Your task to perform on an android device: turn smart compose on in the gmail app Image 0: 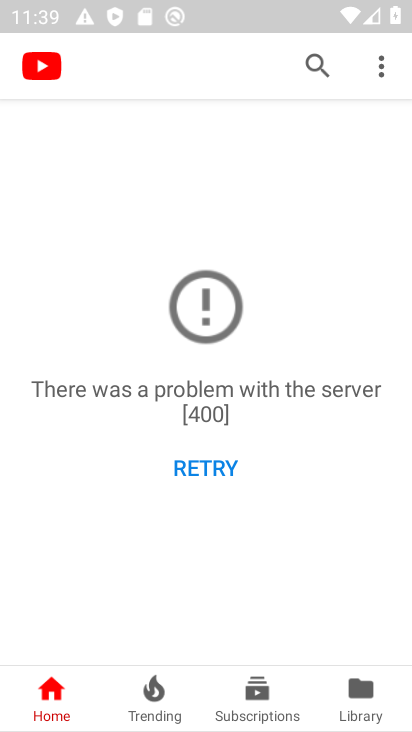
Step 0: press home button
Your task to perform on an android device: turn smart compose on in the gmail app Image 1: 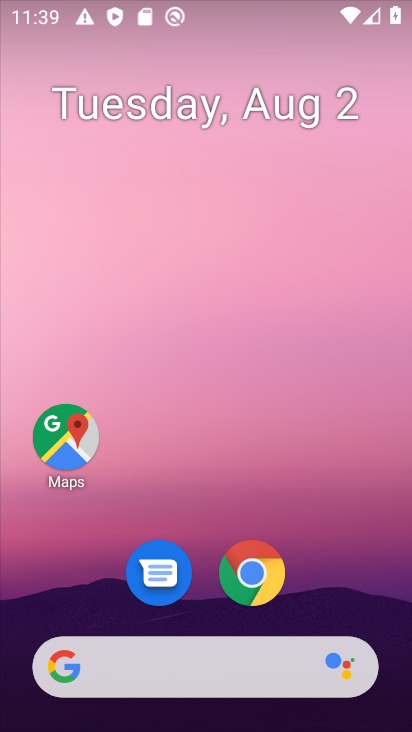
Step 1: drag from (216, 654) to (183, 43)
Your task to perform on an android device: turn smart compose on in the gmail app Image 2: 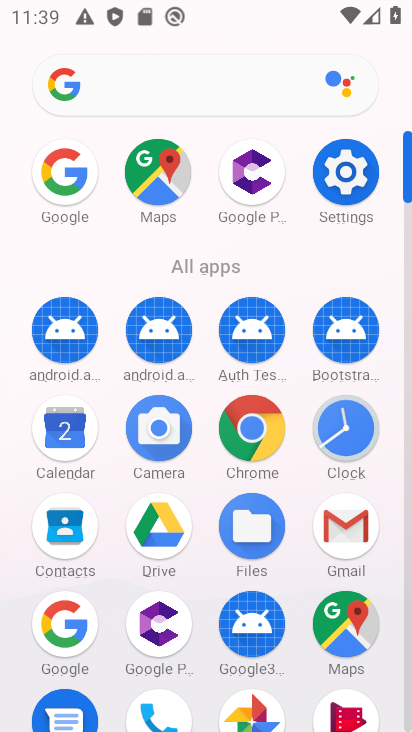
Step 2: click (332, 526)
Your task to perform on an android device: turn smart compose on in the gmail app Image 3: 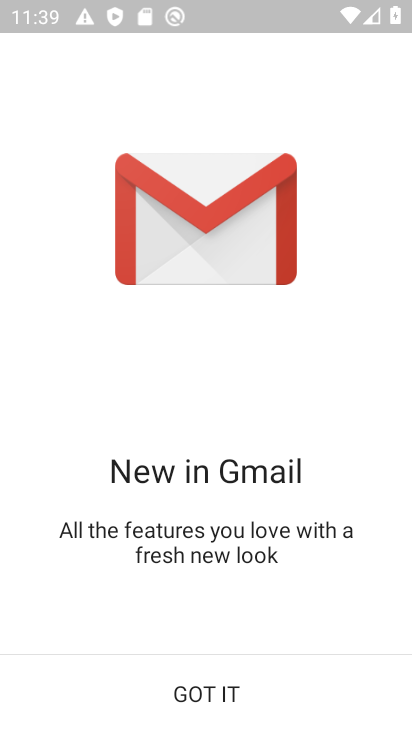
Step 3: click (276, 685)
Your task to perform on an android device: turn smart compose on in the gmail app Image 4: 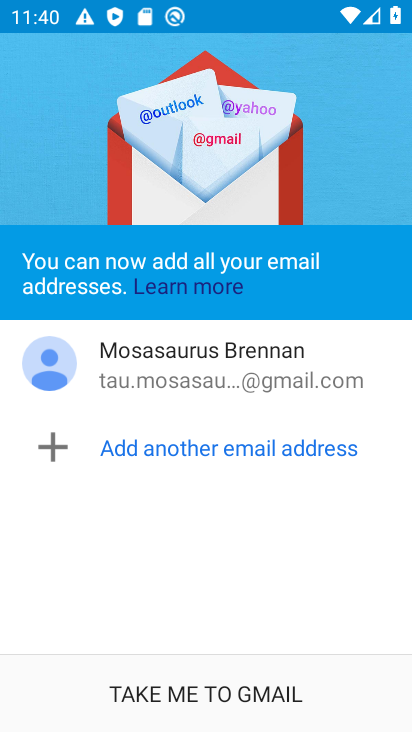
Step 4: click (255, 699)
Your task to perform on an android device: turn smart compose on in the gmail app Image 5: 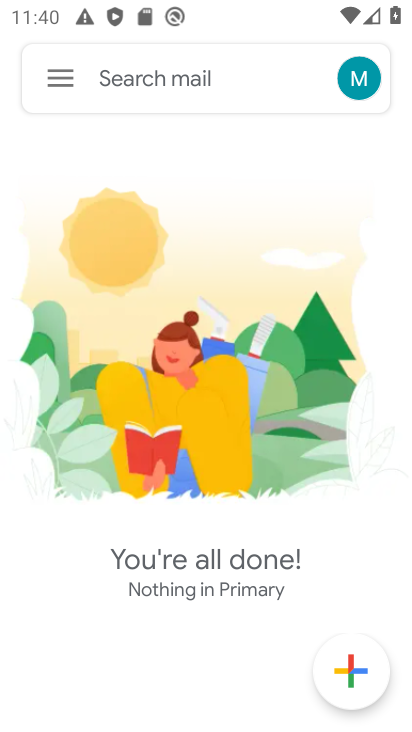
Step 5: click (69, 82)
Your task to perform on an android device: turn smart compose on in the gmail app Image 6: 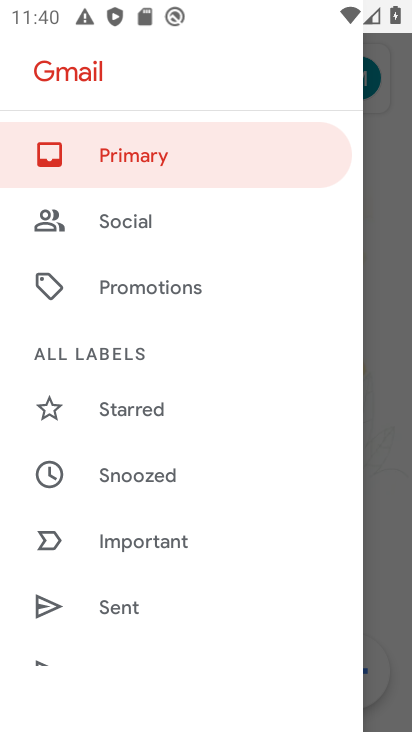
Step 6: drag from (153, 518) to (173, 189)
Your task to perform on an android device: turn smart compose on in the gmail app Image 7: 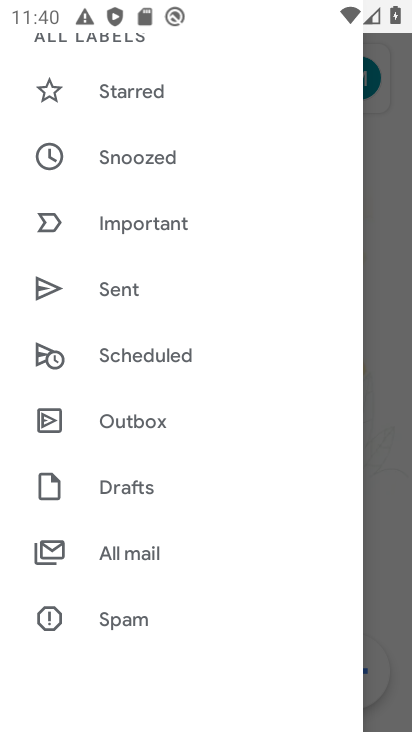
Step 7: drag from (59, 595) to (98, 87)
Your task to perform on an android device: turn smart compose on in the gmail app Image 8: 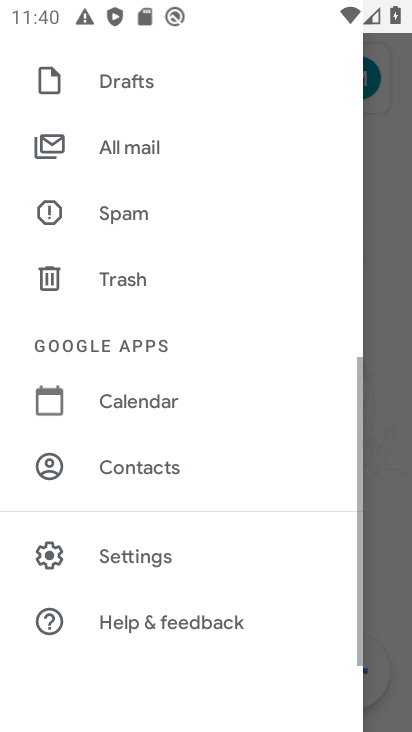
Step 8: click (91, 559)
Your task to perform on an android device: turn smart compose on in the gmail app Image 9: 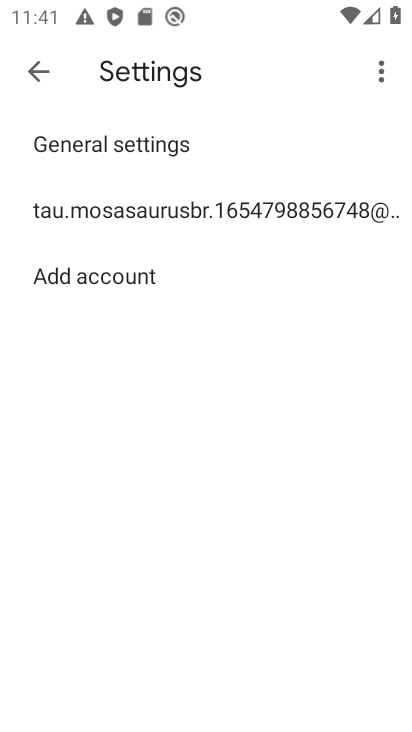
Step 9: click (213, 211)
Your task to perform on an android device: turn smart compose on in the gmail app Image 10: 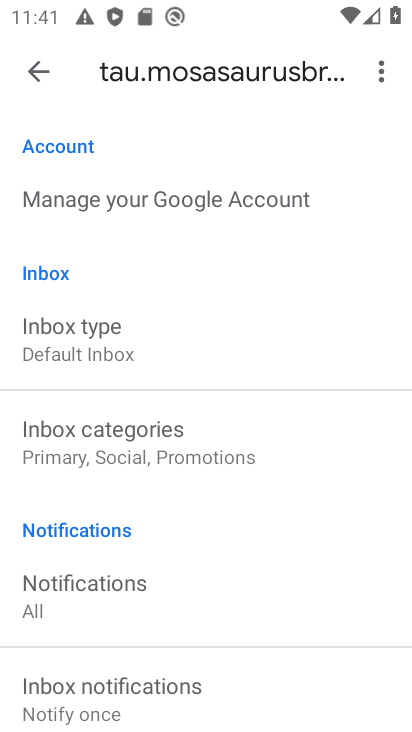
Step 10: task complete